Your task to perform on an android device: What's the weather? Image 0: 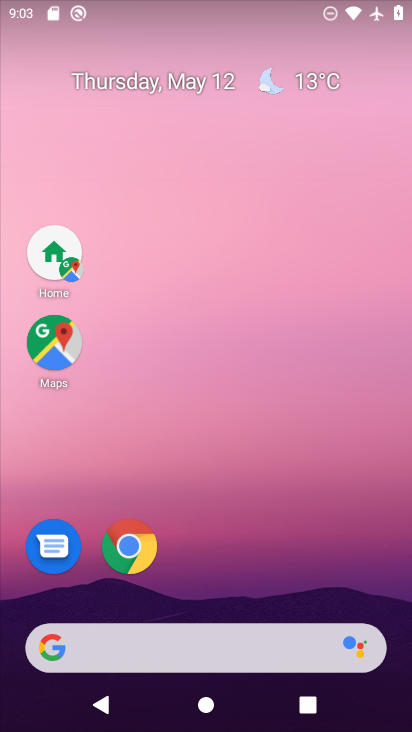
Step 0: click (305, 84)
Your task to perform on an android device: What's the weather? Image 1: 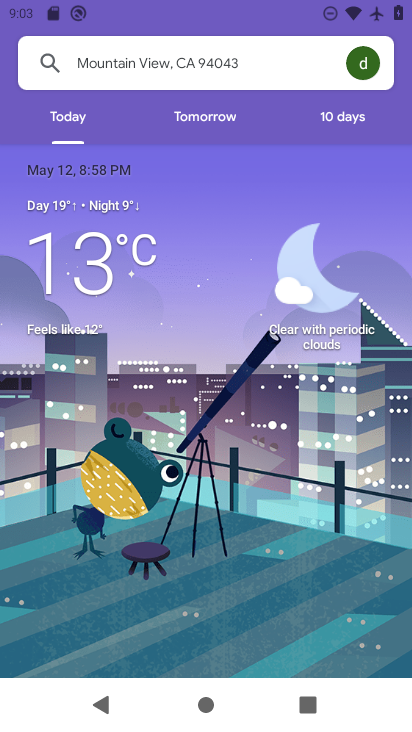
Step 1: task complete